Your task to perform on an android device: Open maps Image 0: 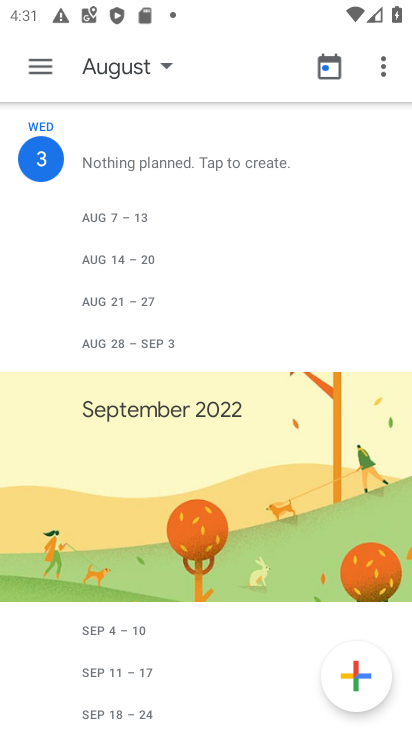
Step 0: press back button
Your task to perform on an android device: Open maps Image 1: 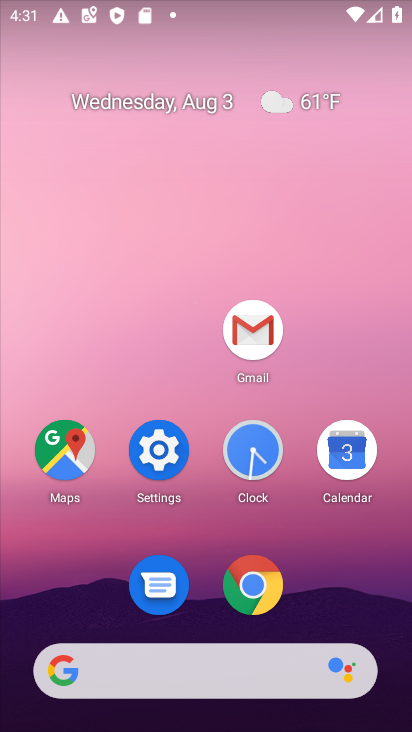
Step 1: click (72, 453)
Your task to perform on an android device: Open maps Image 2: 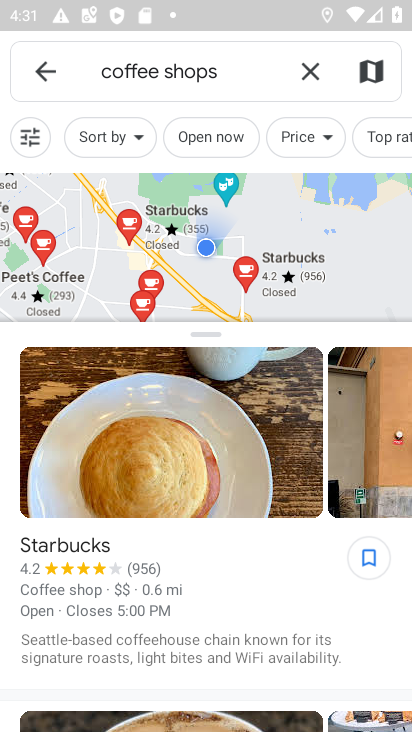
Step 2: click (47, 74)
Your task to perform on an android device: Open maps Image 3: 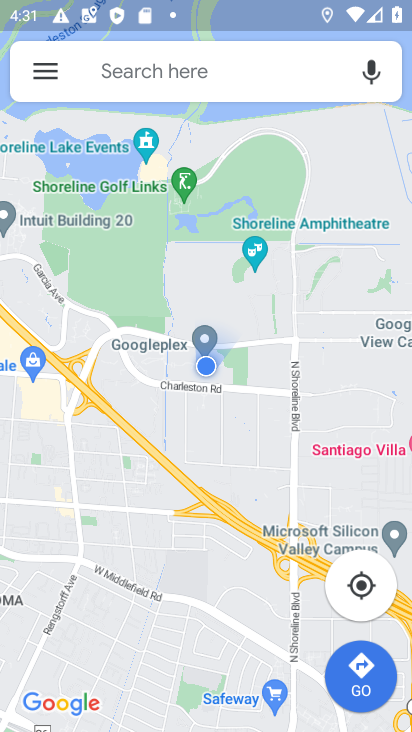
Step 3: task complete